Your task to perform on an android device: Play the latest video from the Huffington Post Image 0: 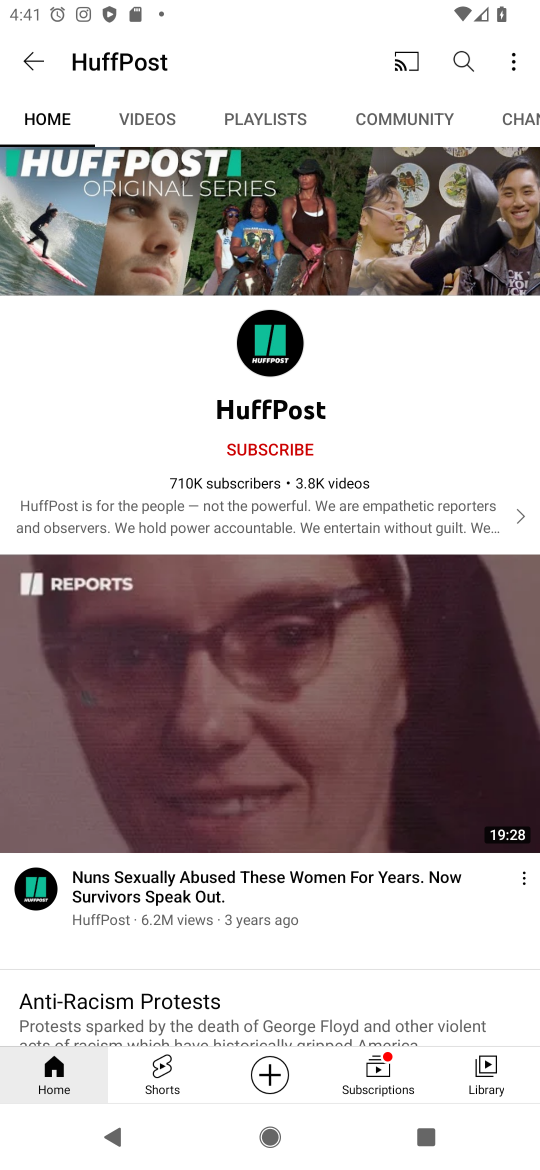
Step 0: press home button
Your task to perform on an android device: Play the latest video from the Huffington Post Image 1: 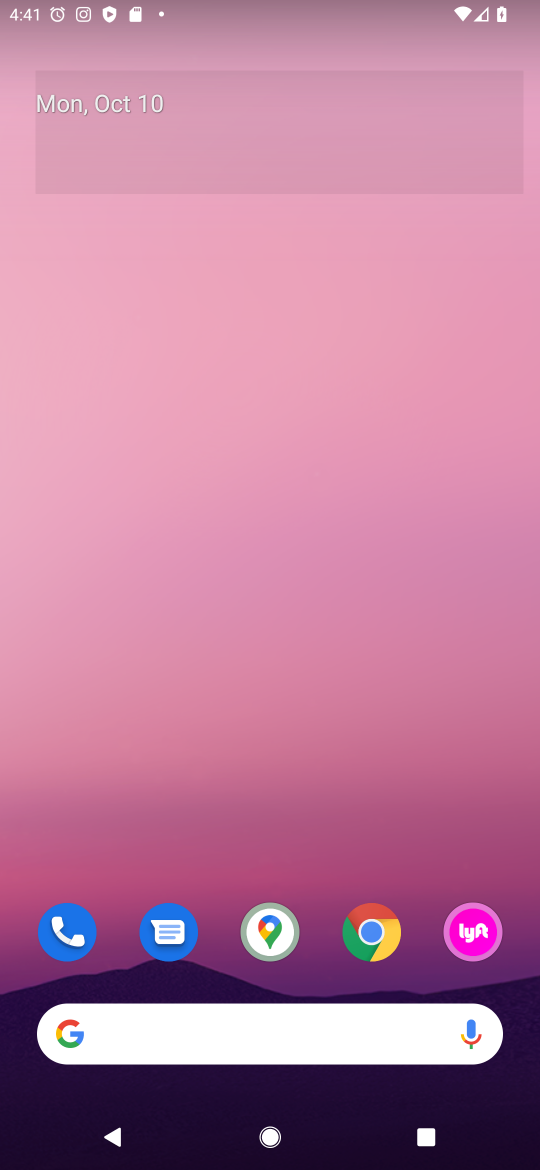
Step 1: click (314, 1038)
Your task to perform on an android device: Play the latest video from the Huffington Post Image 2: 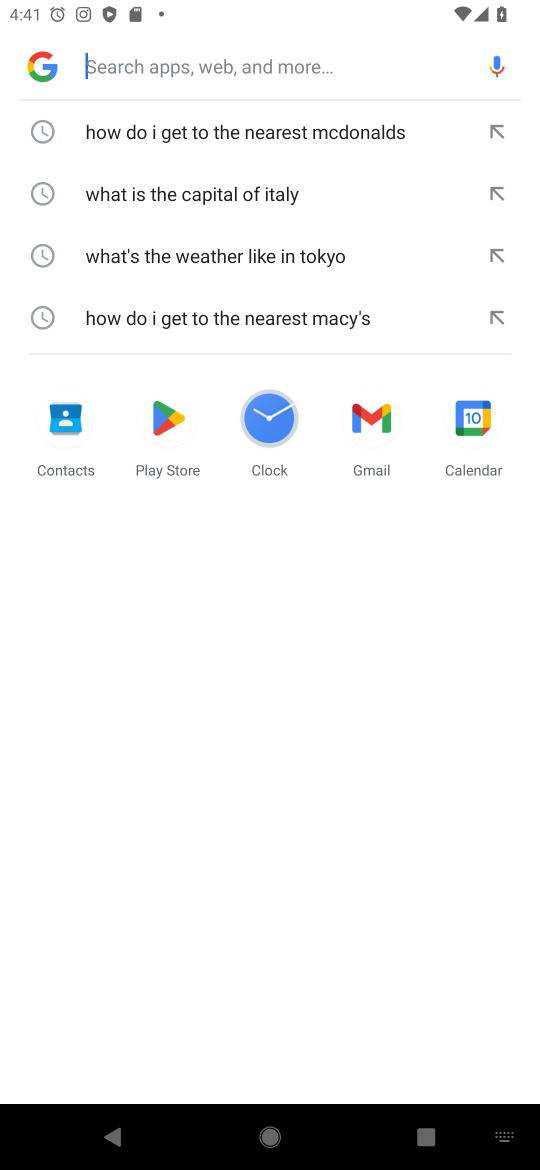
Step 2: type "Play the latest video from the Huffington Post"
Your task to perform on an android device: Play the latest video from the Huffington Post Image 3: 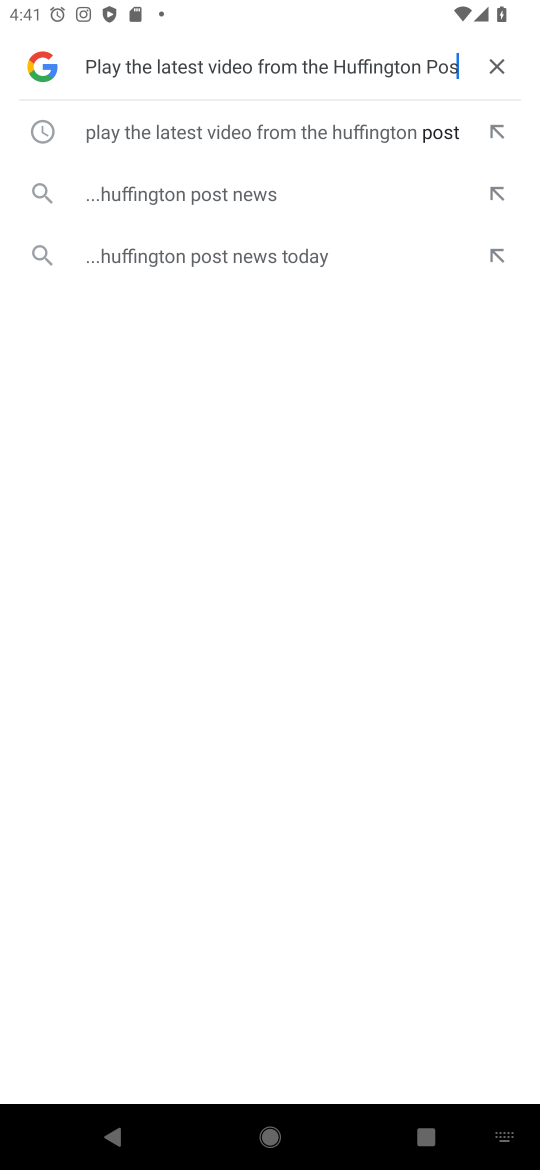
Step 3: press enter
Your task to perform on an android device: Play the latest video from the Huffington Post Image 4: 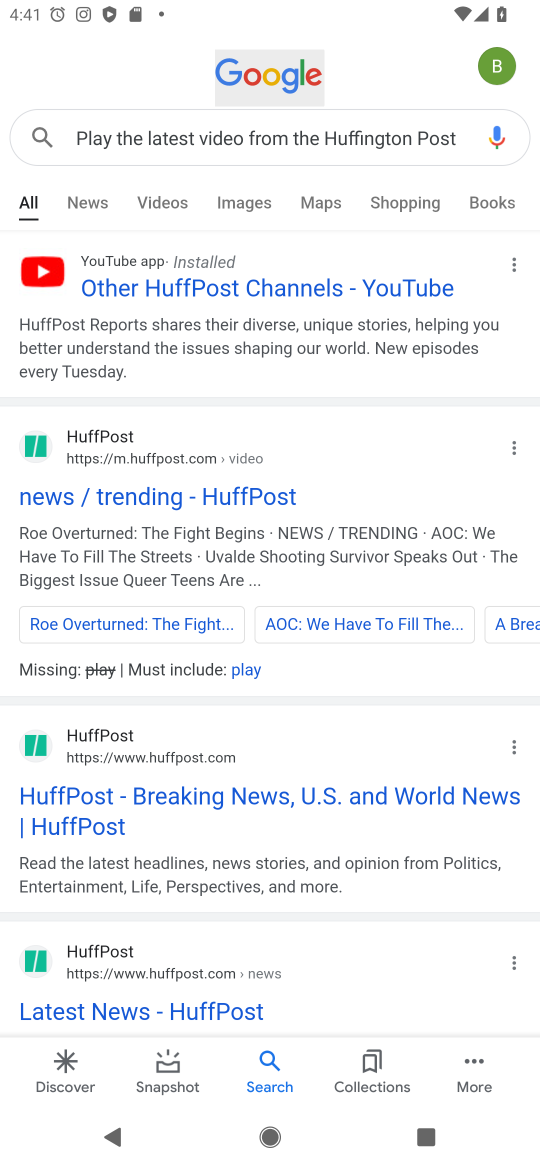
Step 4: drag from (286, 834) to (330, 348)
Your task to perform on an android device: Play the latest video from the Huffington Post Image 5: 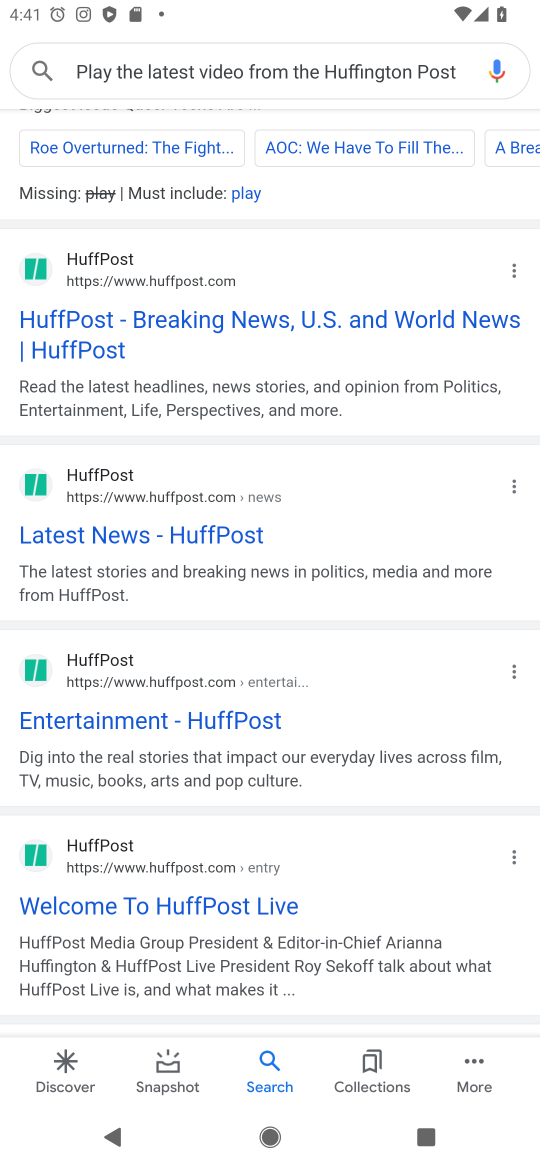
Step 5: drag from (326, 310) to (316, 857)
Your task to perform on an android device: Play the latest video from the Huffington Post Image 6: 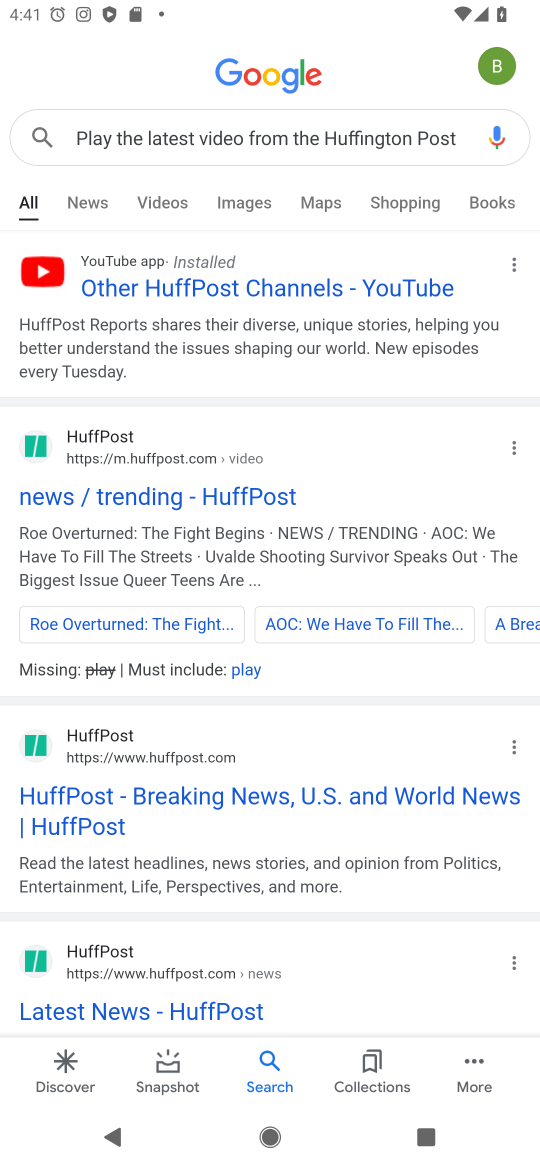
Step 6: click (282, 287)
Your task to perform on an android device: Play the latest video from the Huffington Post Image 7: 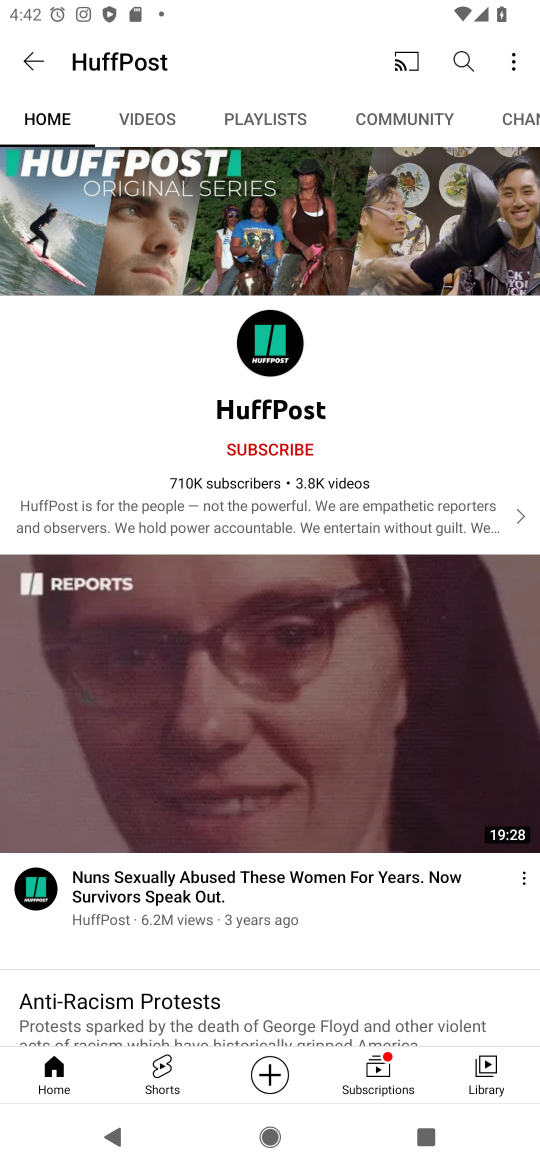
Step 7: drag from (322, 928) to (312, 476)
Your task to perform on an android device: Play the latest video from the Huffington Post Image 8: 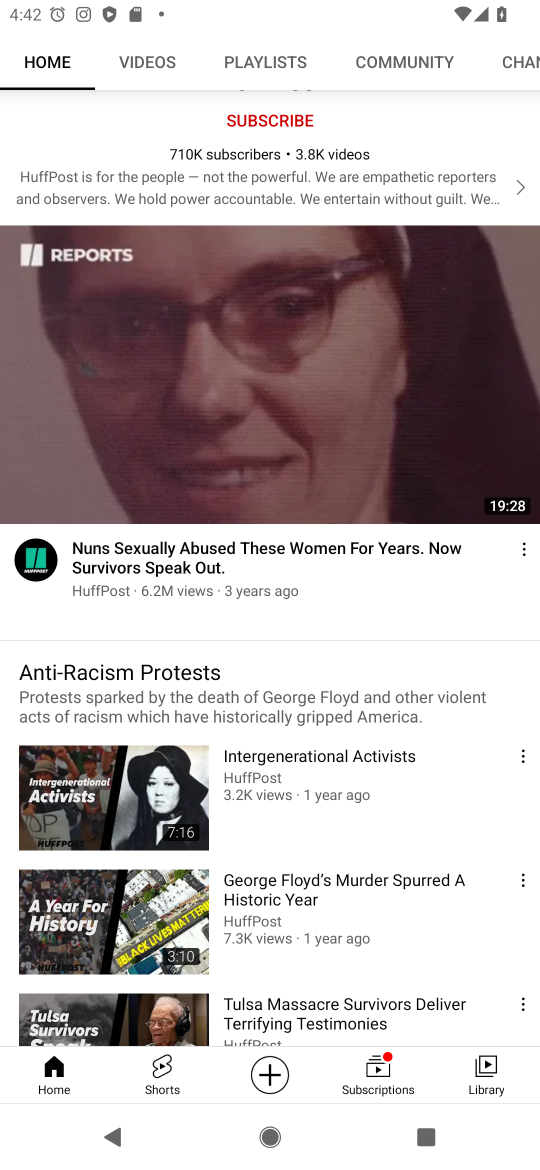
Step 8: drag from (353, 891) to (353, 579)
Your task to perform on an android device: Play the latest video from the Huffington Post Image 9: 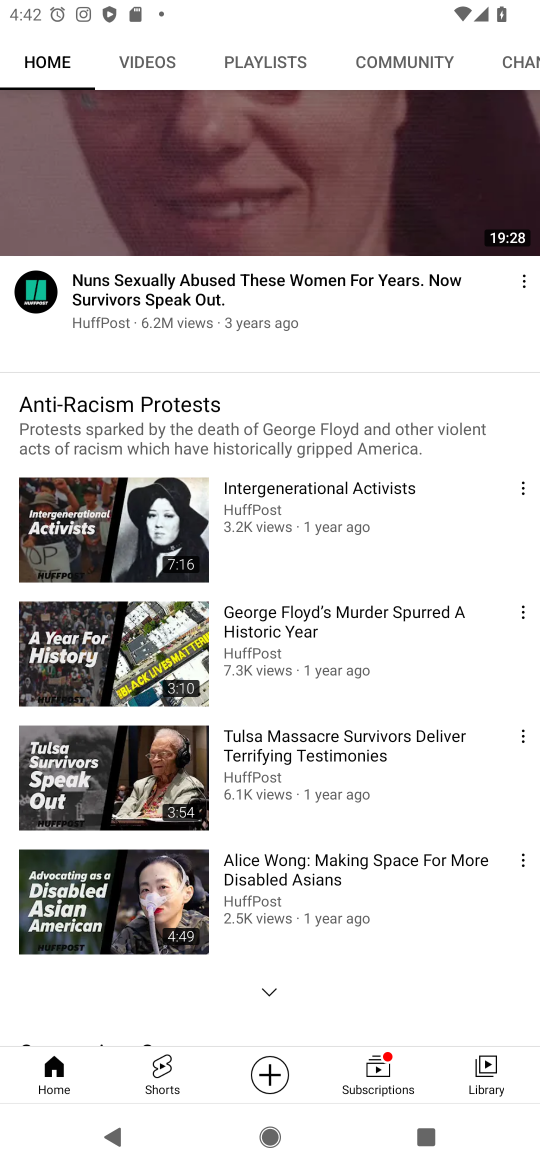
Step 9: drag from (354, 921) to (347, 580)
Your task to perform on an android device: Play the latest video from the Huffington Post Image 10: 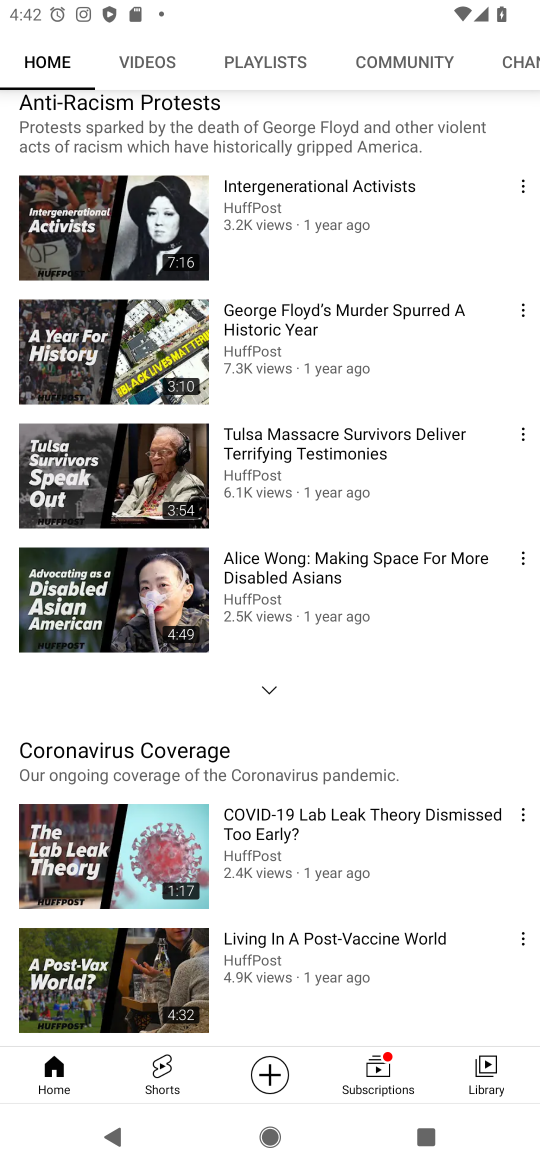
Step 10: click (276, 693)
Your task to perform on an android device: Play the latest video from the Huffington Post Image 11: 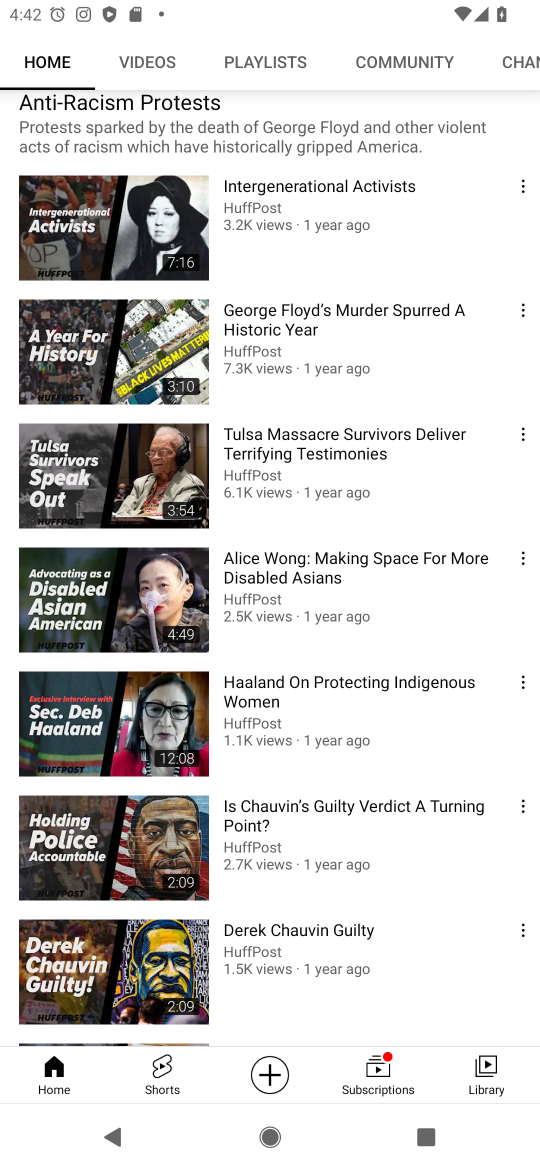
Step 11: drag from (342, 770) to (354, 392)
Your task to perform on an android device: Play the latest video from the Huffington Post Image 12: 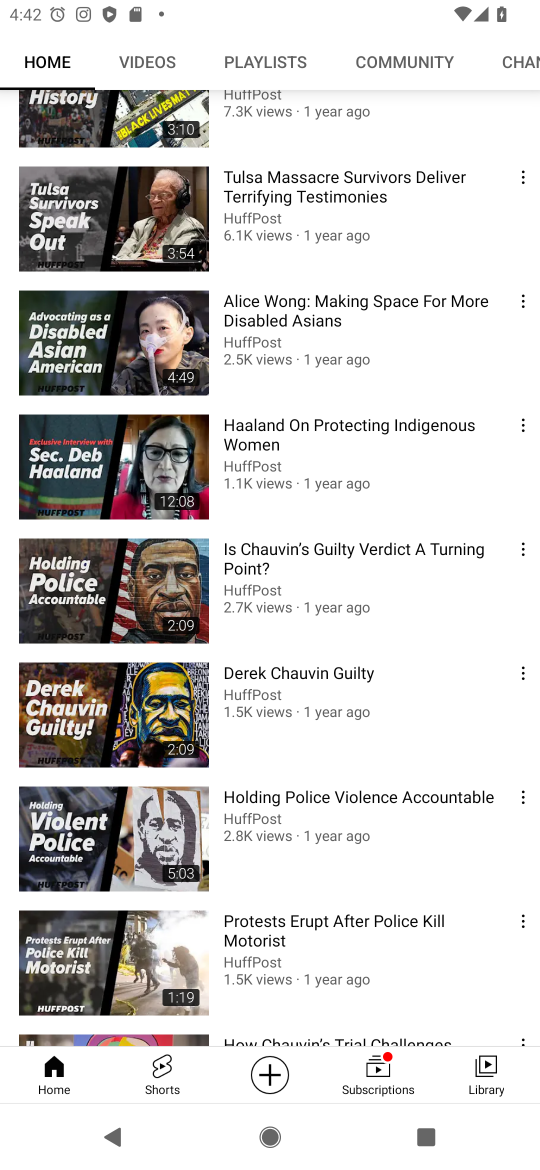
Step 12: drag from (397, 205) to (406, 734)
Your task to perform on an android device: Play the latest video from the Huffington Post Image 13: 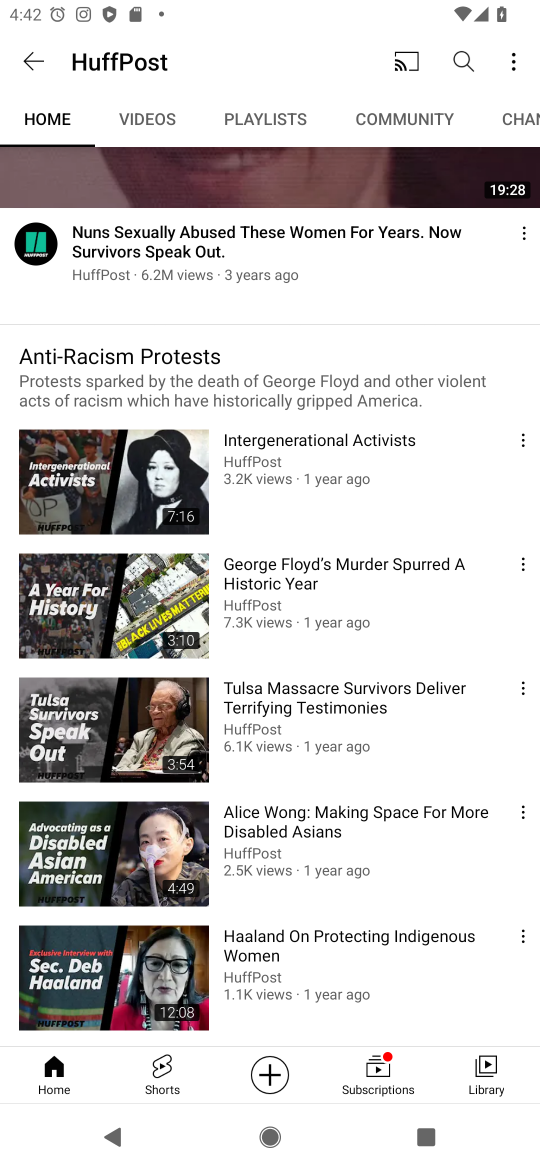
Step 13: drag from (385, 357) to (412, 810)
Your task to perform on an android device: Play the latest video from the Huffington Post Image 14: 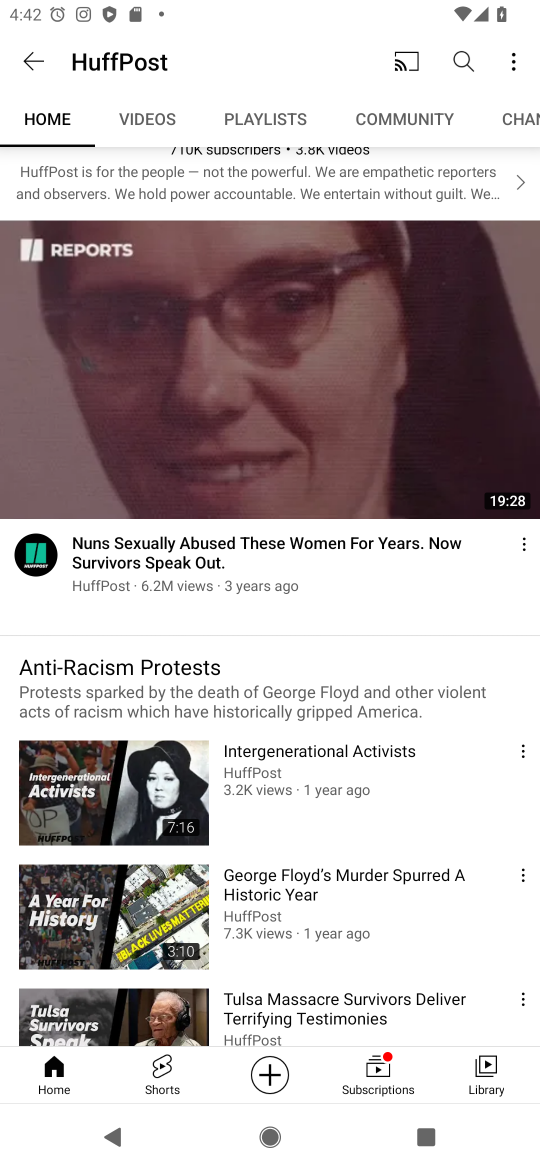
Step 14: drag from (399, 313) to (407, 997)
Your task to perform on an android device: Play the latest video from the Huffington Post Image 15: 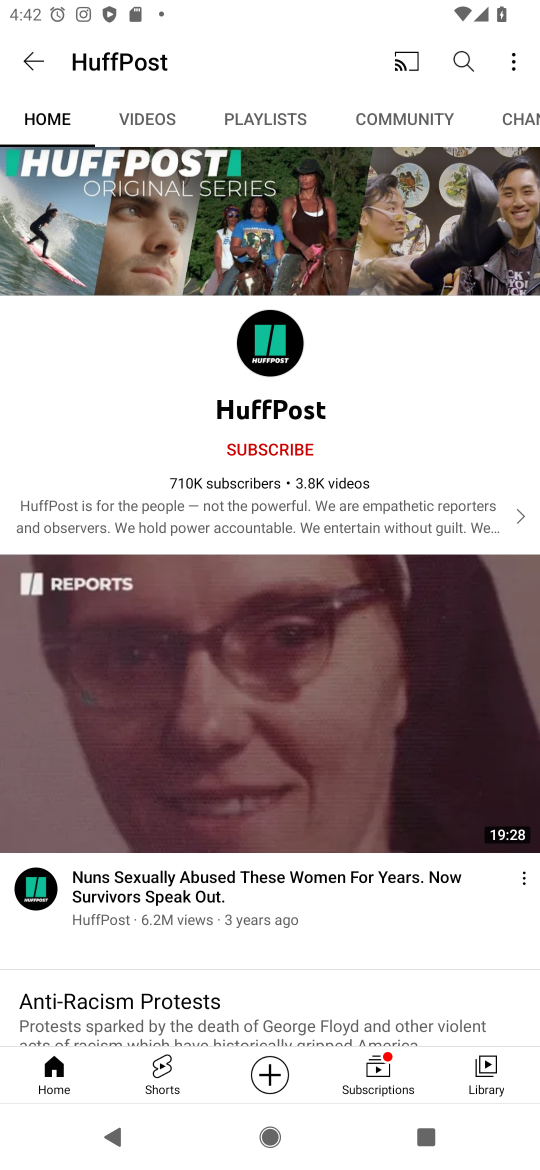
Step 15: click (323, 196)
Your task to perform on an android device: Play the latest video from the Huffington Post Image 16: 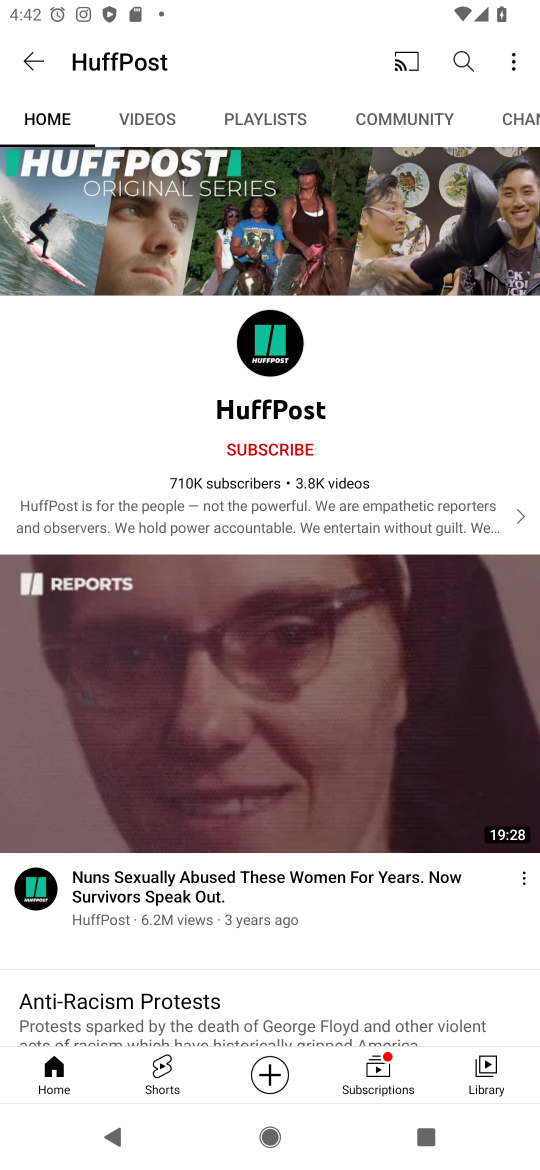
Step 16: click (311, 216)
Your task to perform on an android device: Play the latest video from the Huffington Post Image 17: 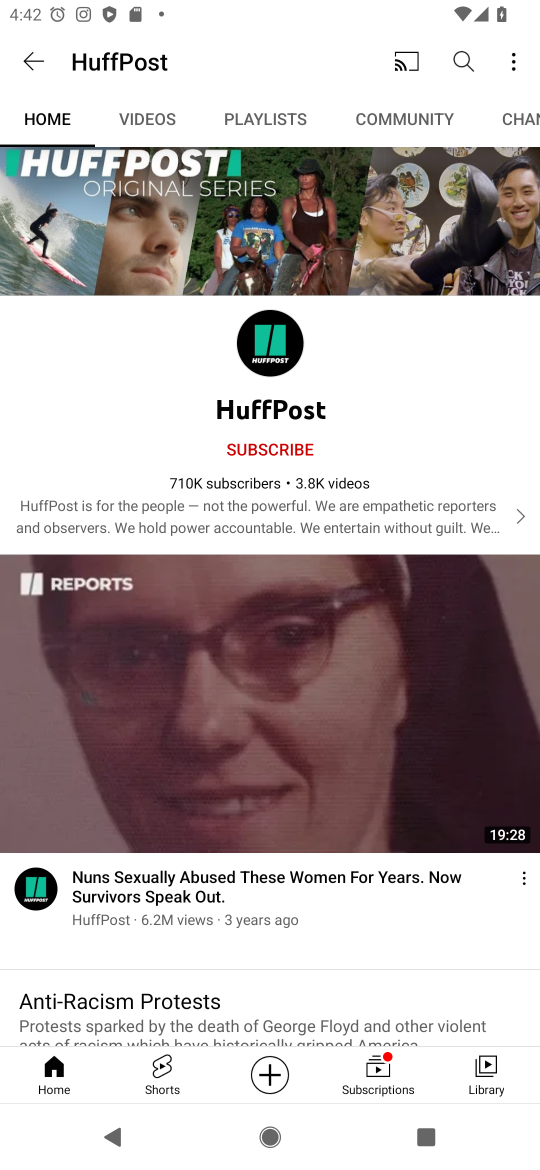
Step 17: task complete